Your task to perform on an android device: check data usage Image 0: 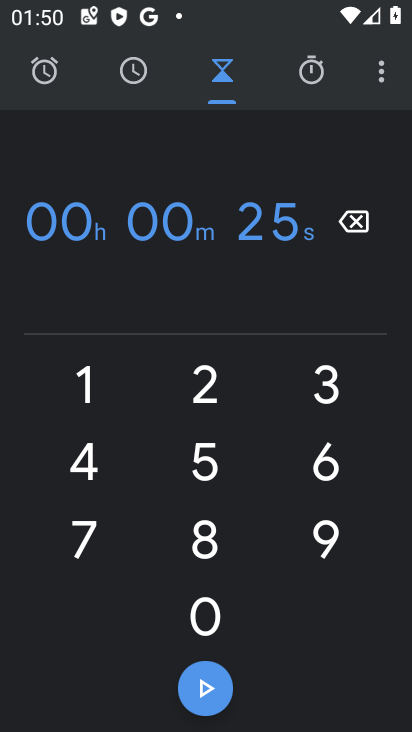
Step 0: press home button
Your task to perform on an android device: check data usage Image 1: 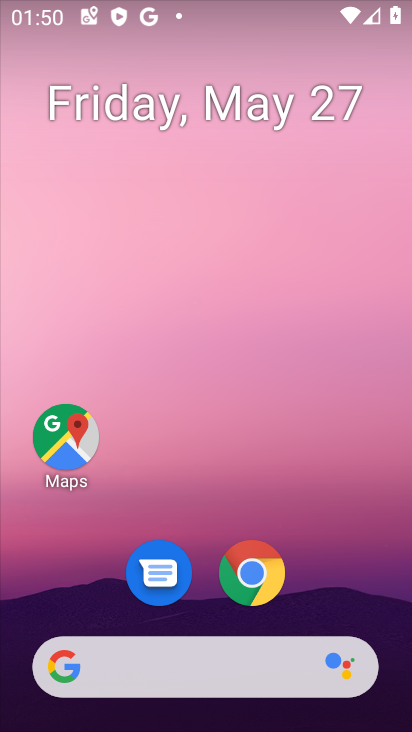
Step 1: drag from (257, 634) to (208, 118)
Your task to perform on an android device: check data usage Image 2: 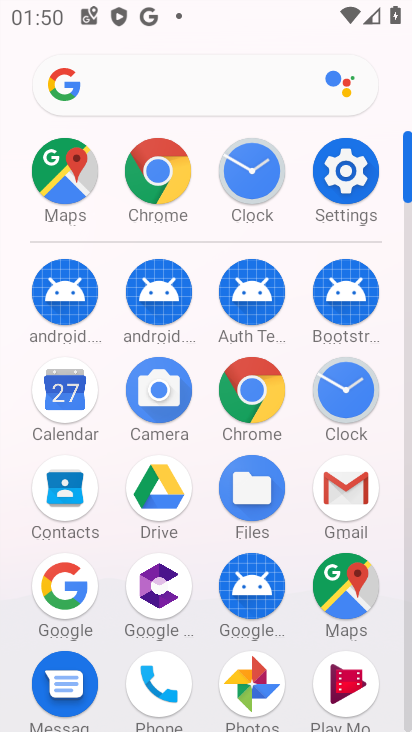
Step 2: click (326, 160)
Your task to perform on an android device: check data usage Image 3: 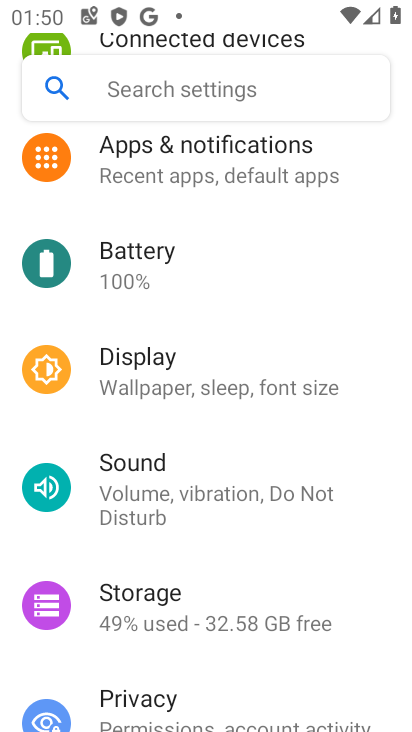
Step 3: drag from (226, 200) to (195, 688)
Your task to perform on an android device: check data usage Image 4: 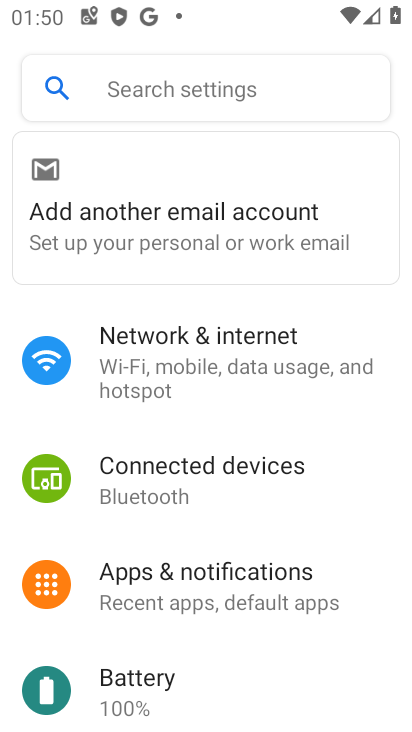
Step 4: click (193, 344)
Your task to perform on an android device: check data usage Image 5: 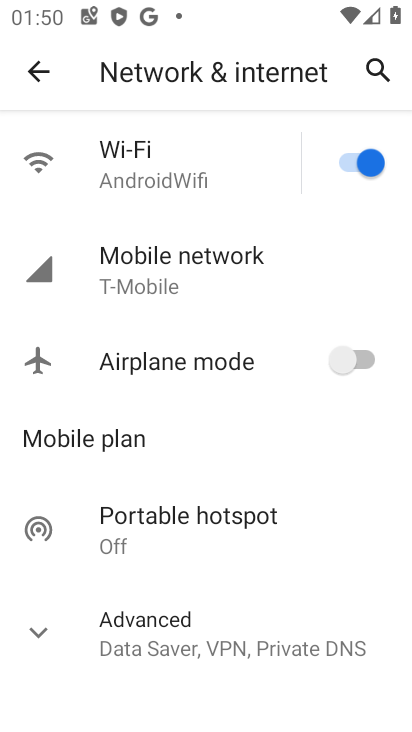
Step 5: click (261, 244)
Your task to perform on an android device: check data usage Image 6: 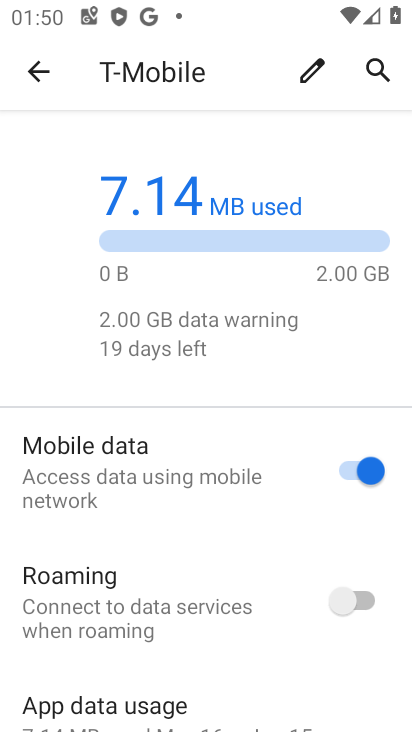
Step 6: press home button
Your task to perform on an android device: check data usage Image 7: 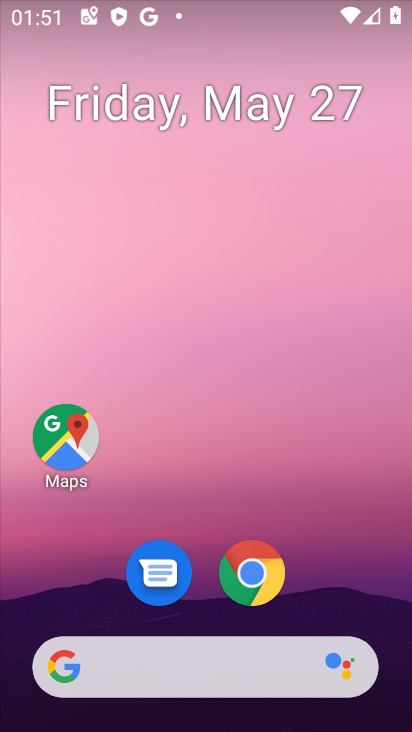
Step 7: drag from (249, 419) to (278, 57)
Your task to perform on an android device: check data usage Image 8: 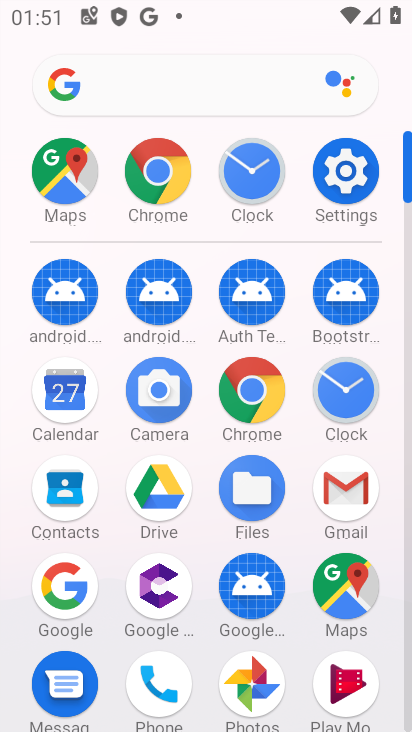
Step 8: click (348, 197)
Your task to perform on an android device: check data usage Image 9: 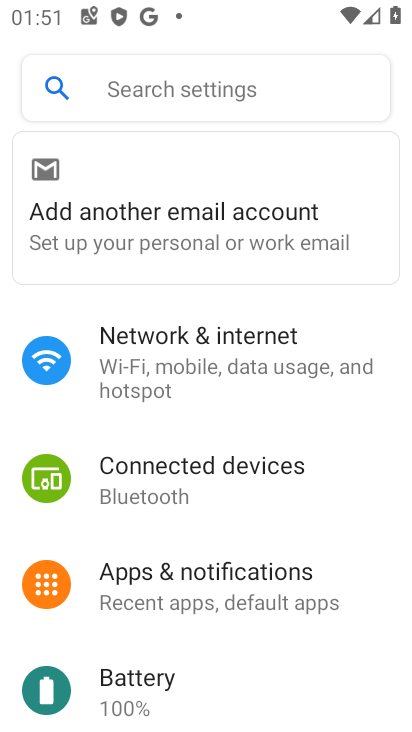
Step 9: click (96, 343)
Your task to perform on an android device: check data usage Image 10: 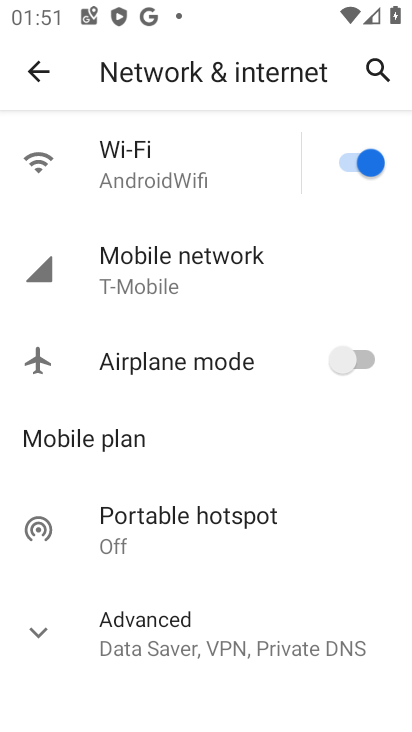
Step 10: click (242, 260)
Your task to perform on an android device: check data usage Image 11: 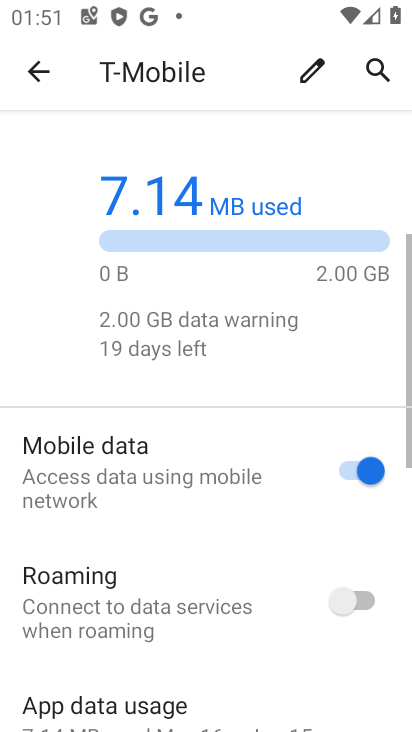
Step 11: task complete